Your task to perform on an android device: Go to Reddit.com Image 0: 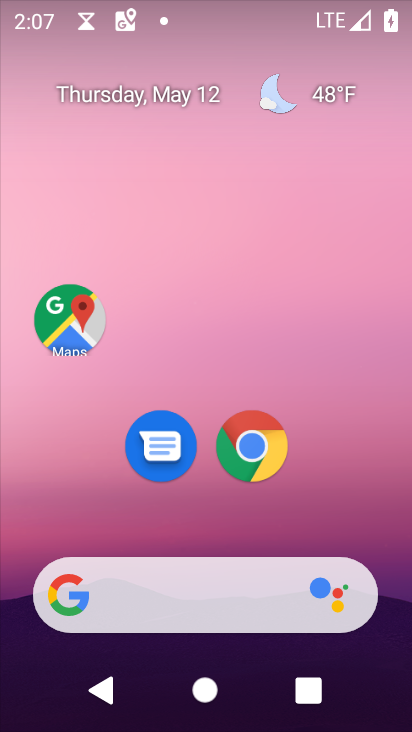
Step 0: click (251, 452)
Your task to perform on an android device: Go to Reddit.com Image 1: 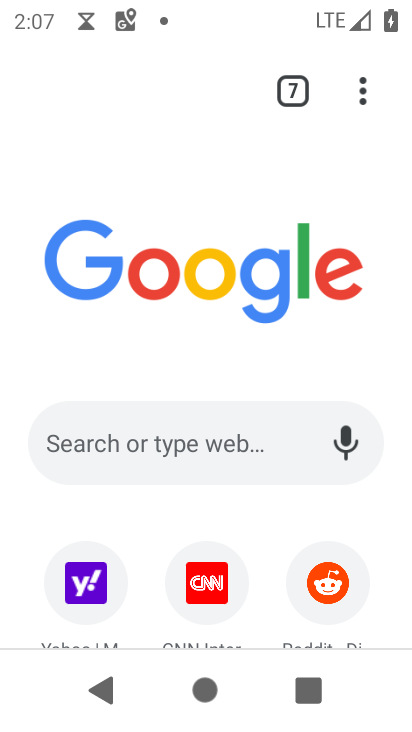
Step 1: drag from (265, 566) to (293, 327)
Your task to perform on an android device: Go to Reddit.com Image 2: 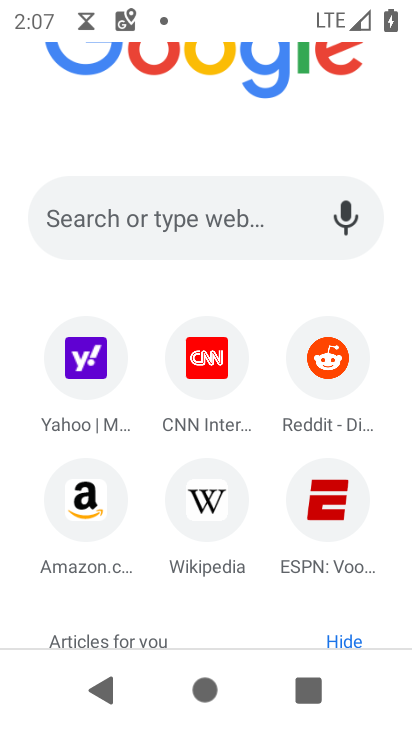
Step 2: click (337, 365)
Your task to perform on an android device: Go to Reddit.com Image 3: 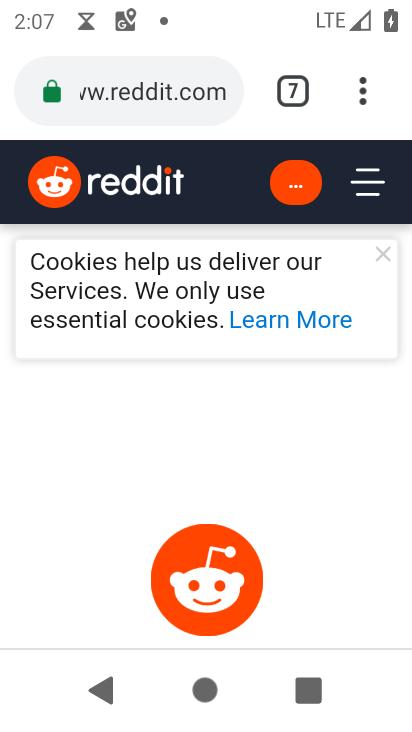
Step 3: task complete